Your task to perform on an android device: Do I have any events tomorrow? Image 0: 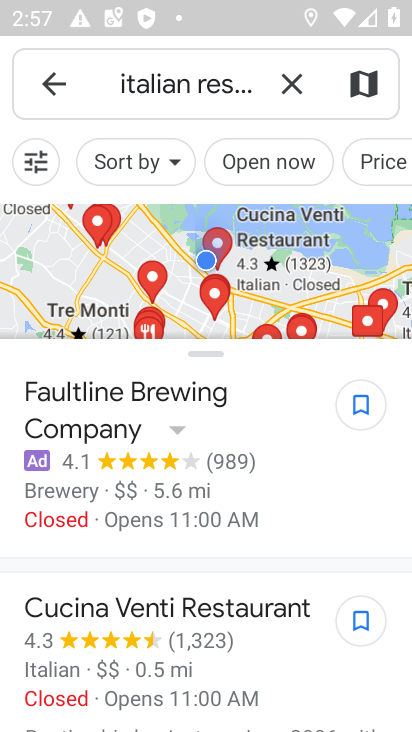
Step 0: press home button
Your task to perform on an android device: Do I have any events tomorrow? Image 1: 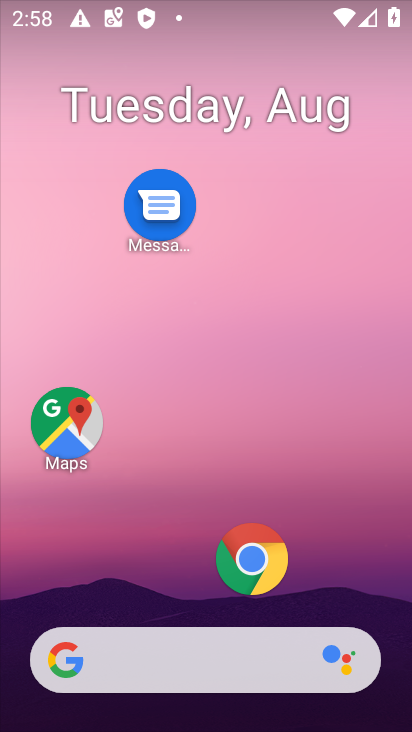
Step 1: drag from (166, 596) to (195, 95)
Your task to perform on an android device: Do I have any events tomorrow? Image 2: 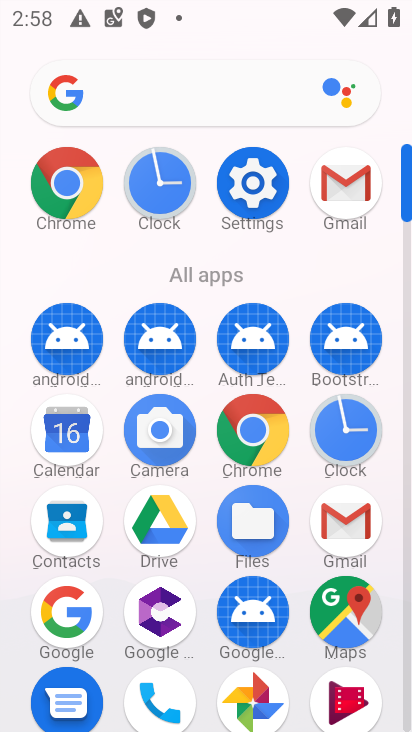
Step 2: click (65, 443)
Your task to perform on an android device: Do I have any events tomorrow? Image 3: 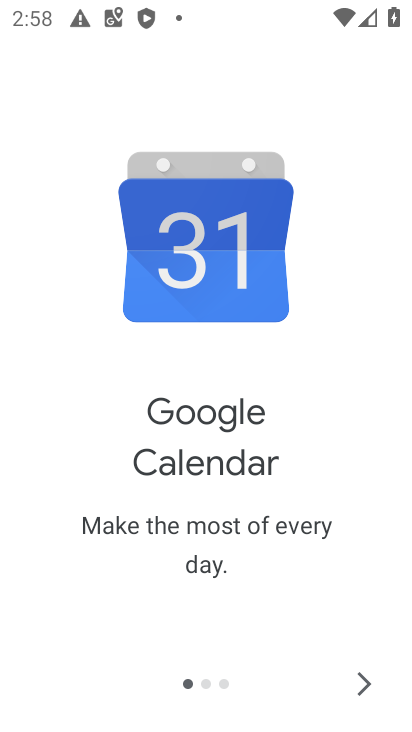
Step 3: click (355, 683)
Your task to perform on an android device: Do I have any events tomorrow? Image 4: 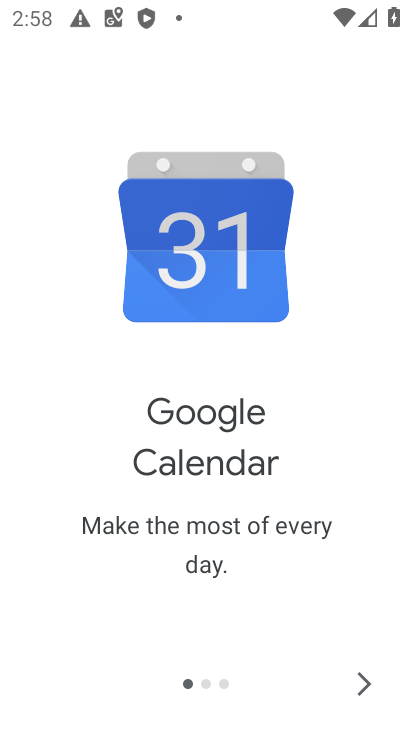
Step 4: click (355, 683)
Your task to perform on an android device: Do I have any events tomorrow? Image 5: 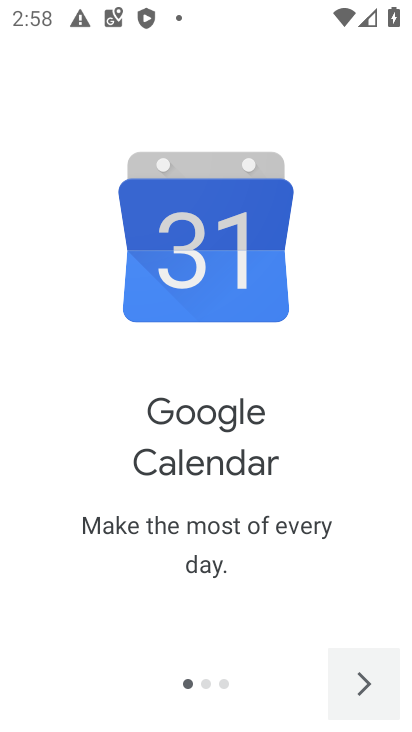
Step 5: click (355, 683)
Your task to perform on an android device: Do I have any events tomorrow? Image 6: 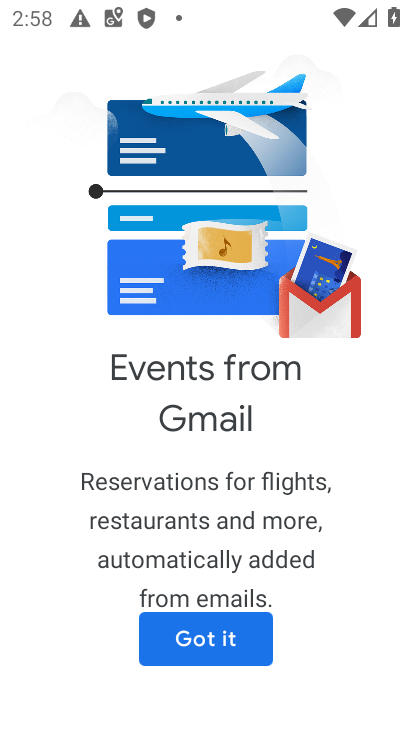
Step 6: click (208, 639)
Your task to perform on an android device: Do I have any events tomorrow? Image 7: 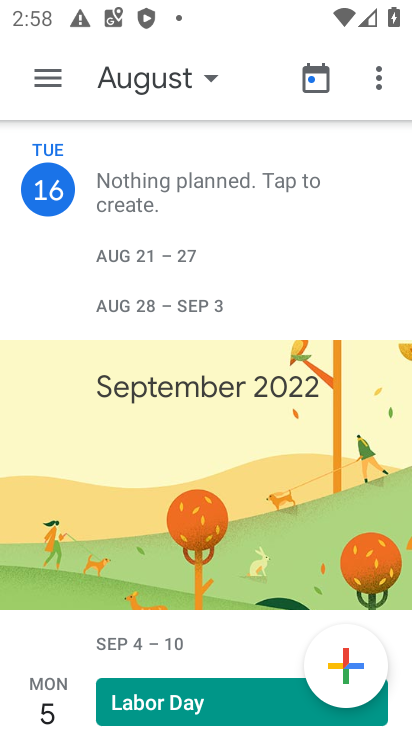
Step 7: click (50, 69)
Your task to perform on an android device: Do I have any events tomorrow? Image 8: 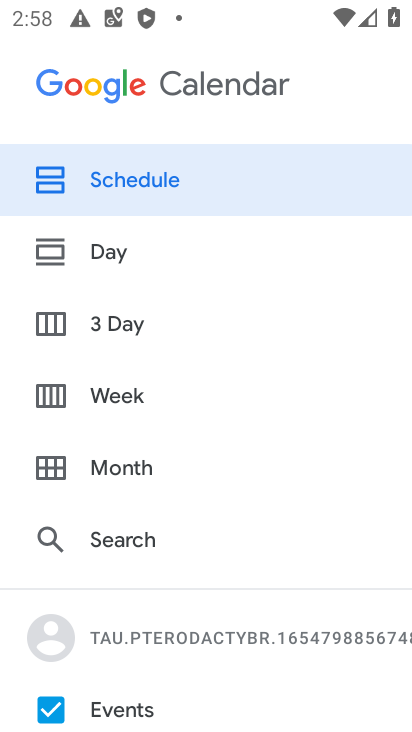
Step 8: click (97, 253)
Your task to perform on an android device: Do I have any events tomorrow? Image 9: 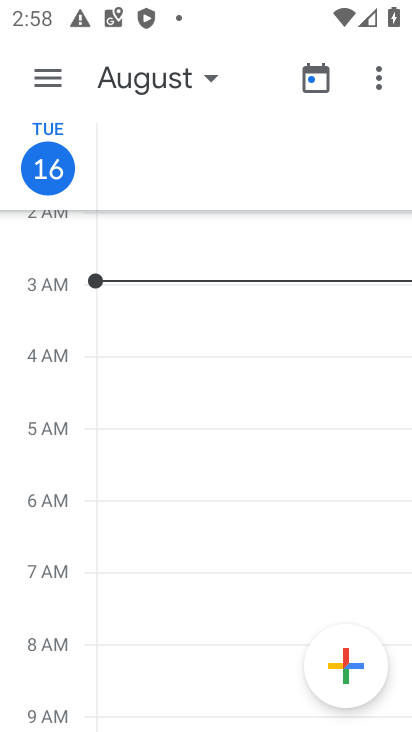
Step 9: click (207, 78)
Your task to perform on an android device: Do I have any events tomorrow? Image 10: 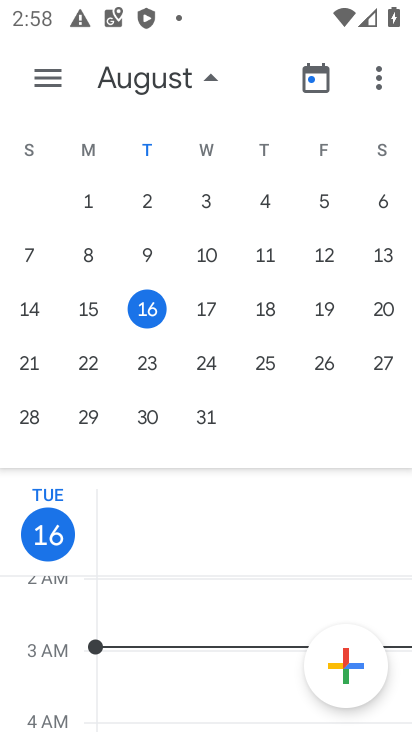
Step 10: click (209, 302)
Your task to perform on an android device: Do I have any events tomorrow? Image 11: 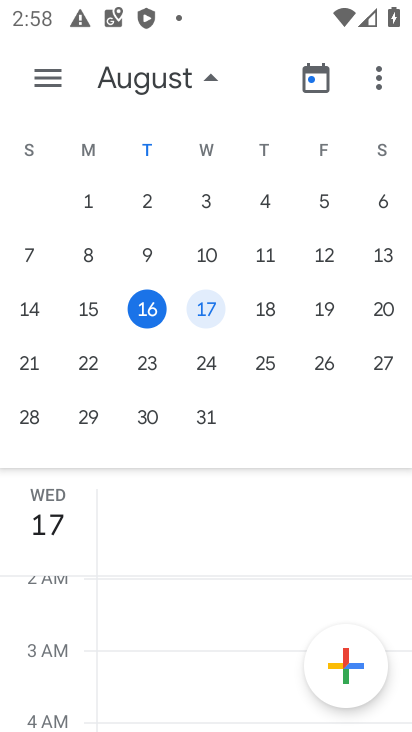
Step 11: task complete